Your task to perform on an android device: change the clock display to digital Image 0: 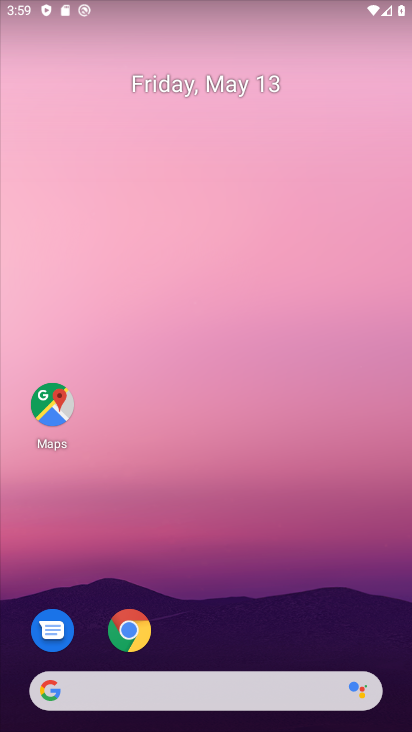
Step 0: drag from (223, 634) to (225, 276)
Your task to perform on an android device: change the clock display to digital Image 1: 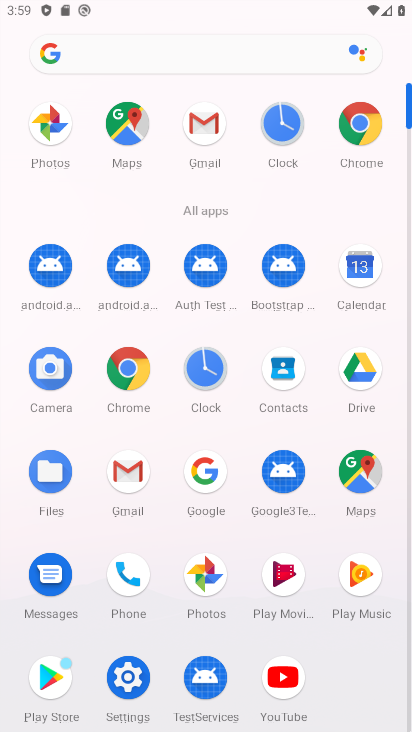
Step 1: click (203, 364)
Your task to perform on an android device: change the clock display to digital Image 2: 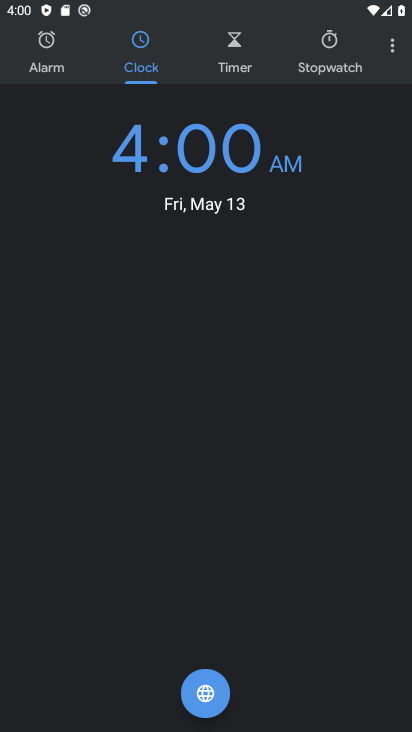
Step 2: click (393, 50)
Your task to perform on an android device: change the clock display to digital Image 3: 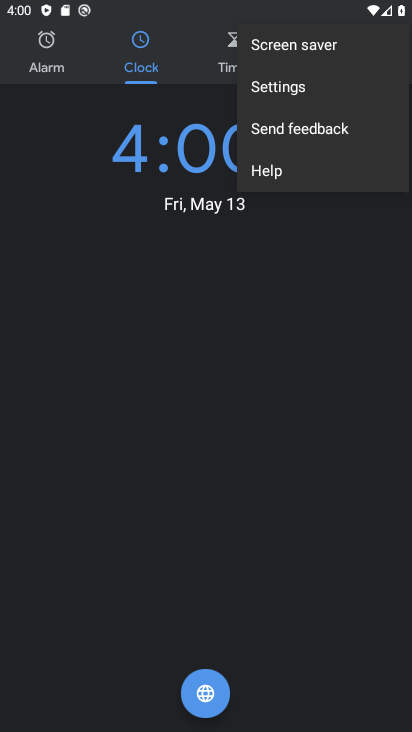
Step 3: click (281, 89)
Your task to perform on an android device: change the clock display to digital Image 4: 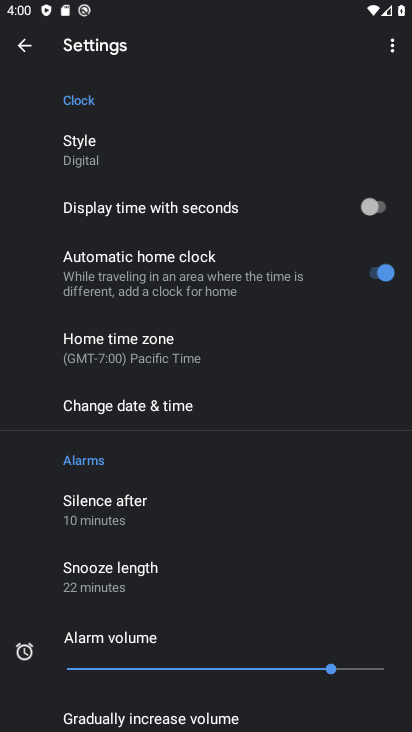
Step 4: task complete